Your task to perform on an android device: See recent photos Image 0: 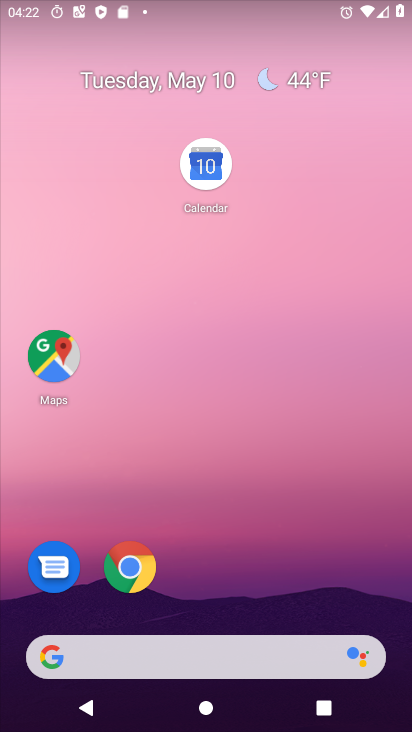
Step 0: drag from (217, 557) to (205, 61)
Your task to perform on an android device: See recent photos Image 1: 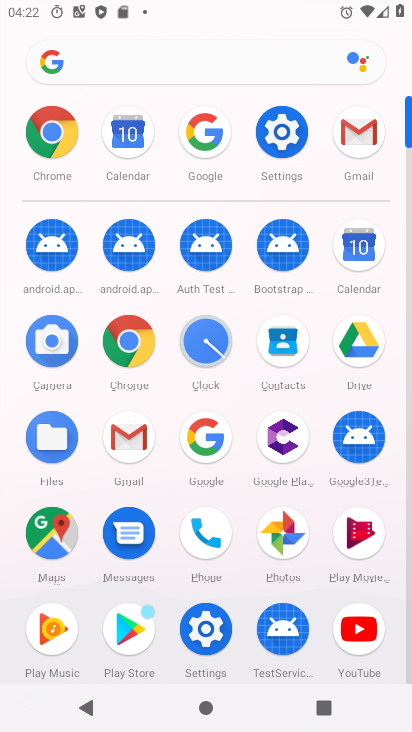
Step 1: click (283, 529)
Your task to perform on an android device: See recent photos Image 2: 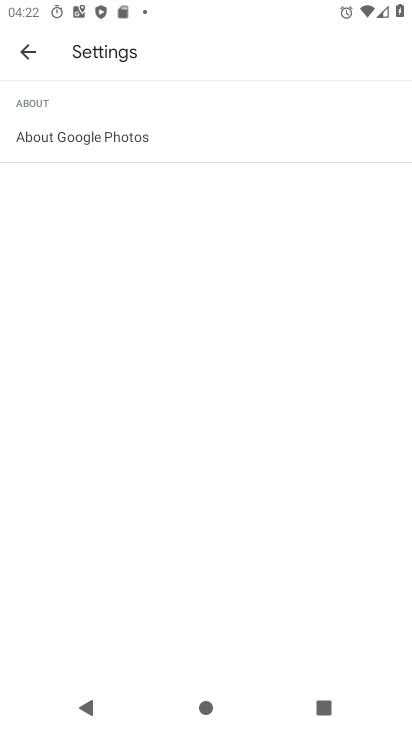
Step 2: task complete